Your task to perform on an android device: Go to location settings Image 0: 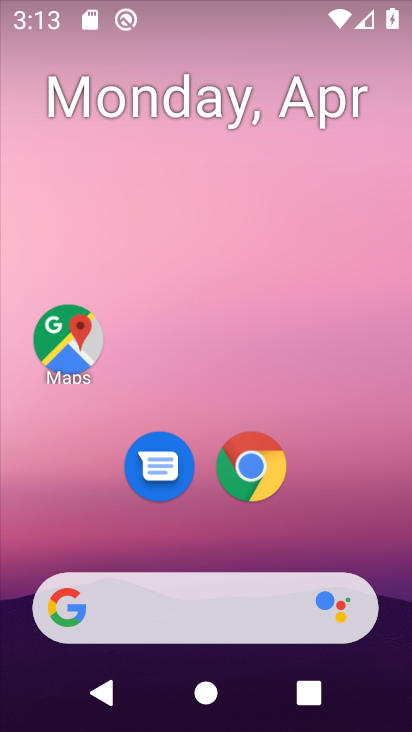
Step 0: drag from (232, 523) to (331, 215)
Your task to perform on an android device: Go to location settings Image 1: 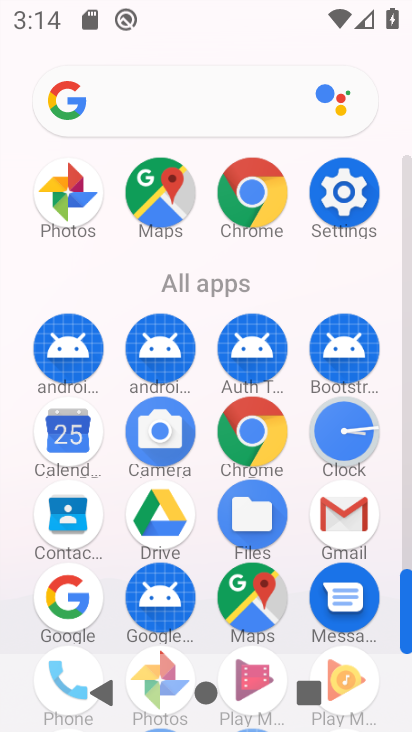
Step 1: click (344, 206)
Your task to perform on an android device: Go to location settings Image 2: 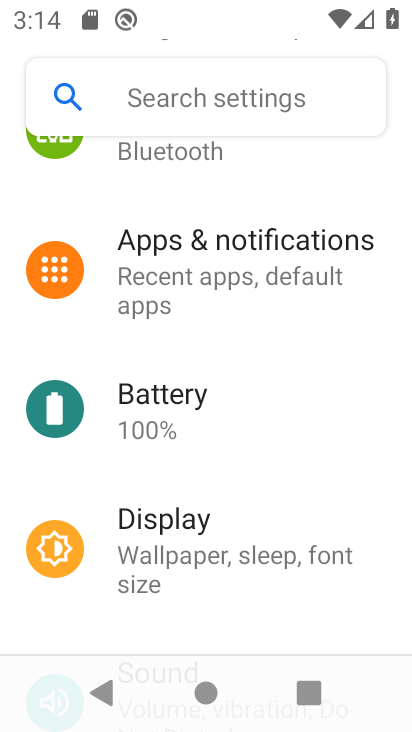
Step 2: drag from (228, 462) to (246, 232)
Your task to perform on an android device: Go to location settings Image 3: 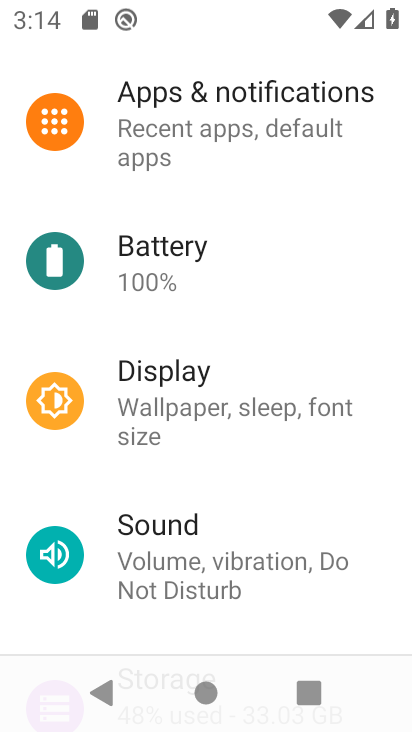
Step 3: drag from (262, 503) to (261, 191)
Your task to perform on an android device: Go to location settings Image 4: 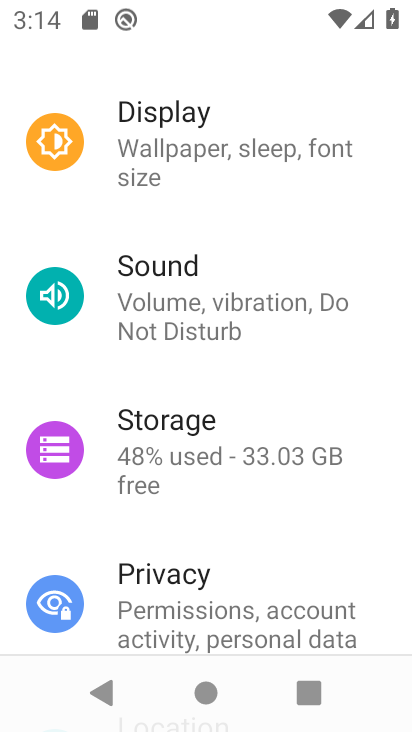
Step 4: drag from (291, 537) to (289, 172)
Your task to perform on an android device: Go to location settings Image 5: 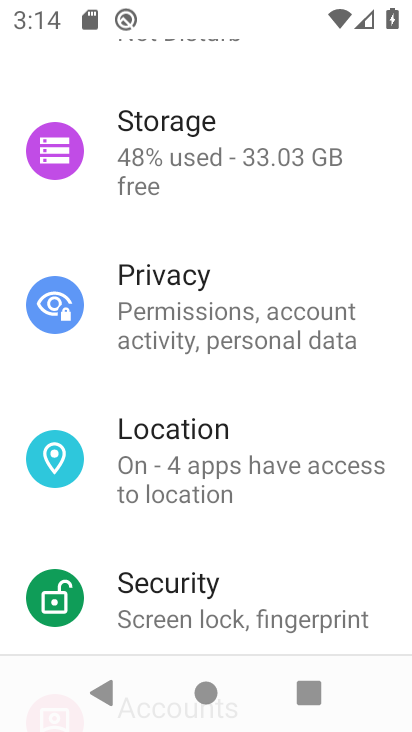
Step 5: click (230, 482)
Your task to perform on an android device: Go to location settings Image 6: 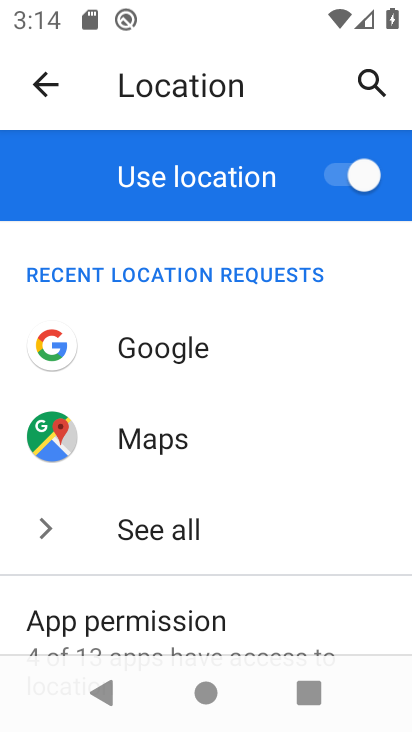
Step 6: task complete